Your task to perform on an android device: toggle show notifications on the lock screen Image 0: 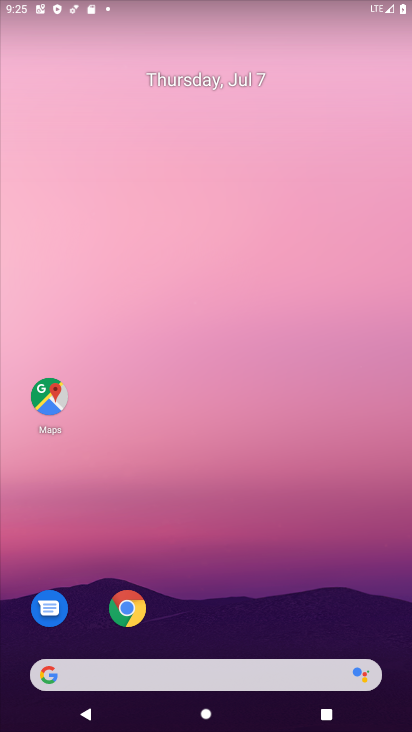
Step 0: drag from (217, 629) to (303, 155)
Your task to perform on an android device: toggle show notifications on the lock screen Image 1: 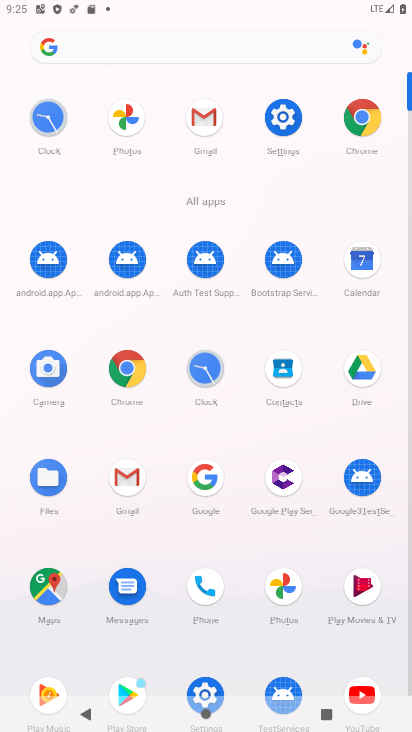
Step 1: click (283, 121)
Your task to perform on an android device: toggle show notifications on the lock screen Image 2: 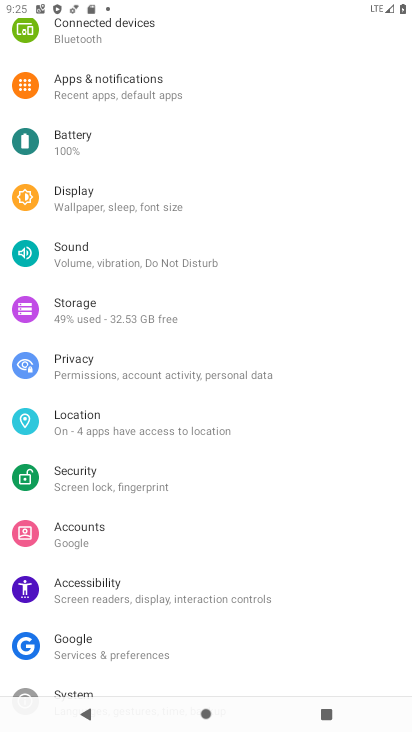
Step 2: click (95, 93)
Your task to perform on an android device: toggle show notifications on the lock screen Image 3: 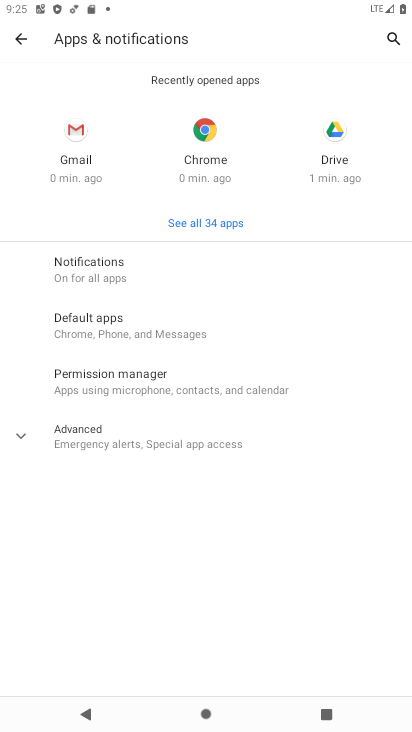
Step 3: click (83, 280)
Your task to perform on an android device: toggle show notifications on the lock screen Image 4: 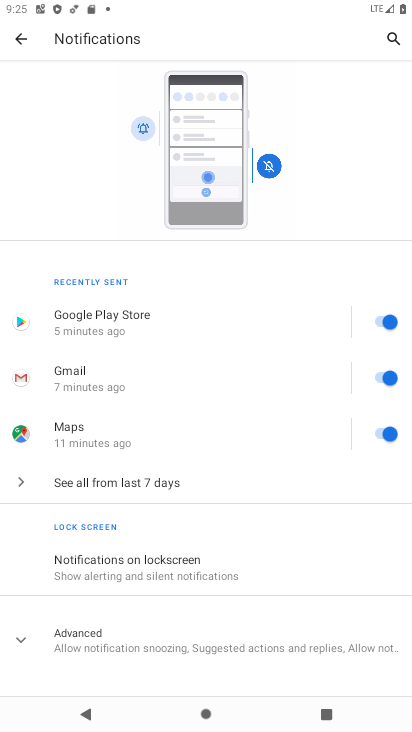
Step 4: drag from (91, 577) to (129, 368)
Your task to perform on an android device: toggle show notifications on the lock screen Image 5: 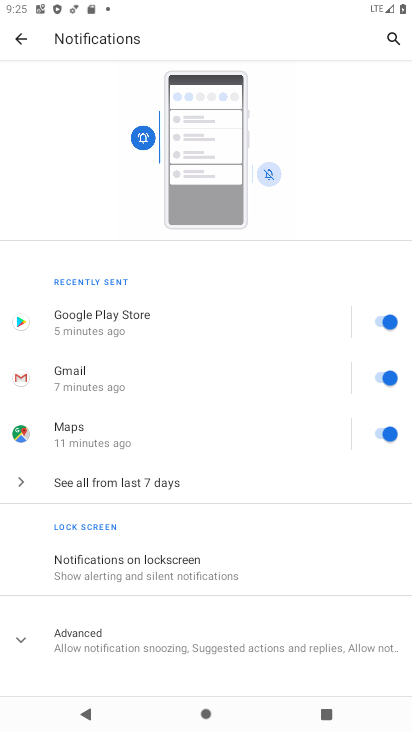
Step 5: drag from (111, 571) to (153, 433)
Your task to perform on an android device: toggle show notifications on the lock screen Image 6: 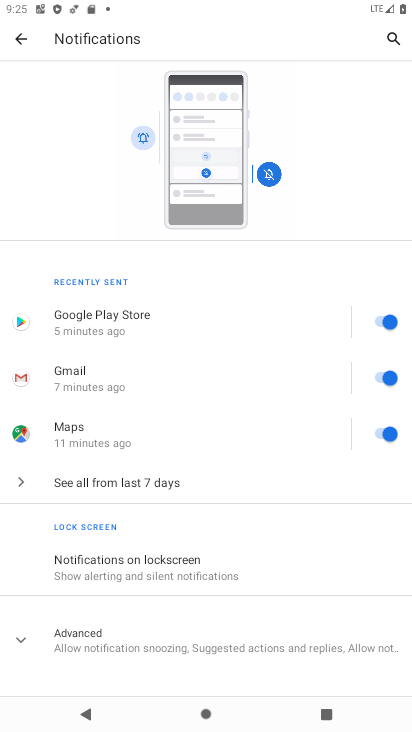
Step 6: click (179, 575)
Your task to perform on an android device: toggle show notifications on the lock screen Image 7: 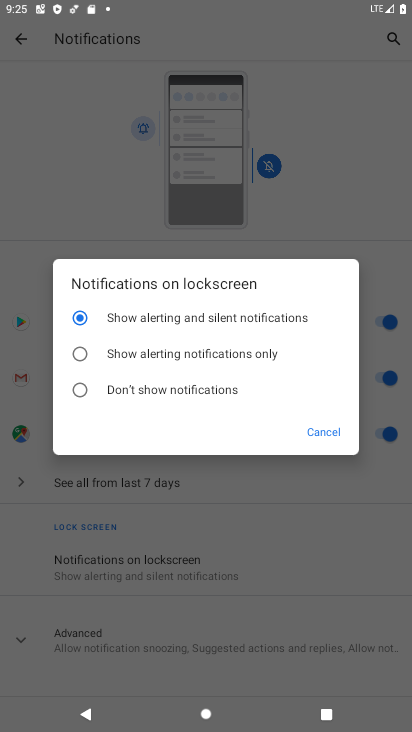
Step 7: click (78, 391)
Your task to perform on an android device: toggle show notifications on the lock screen Image 8: 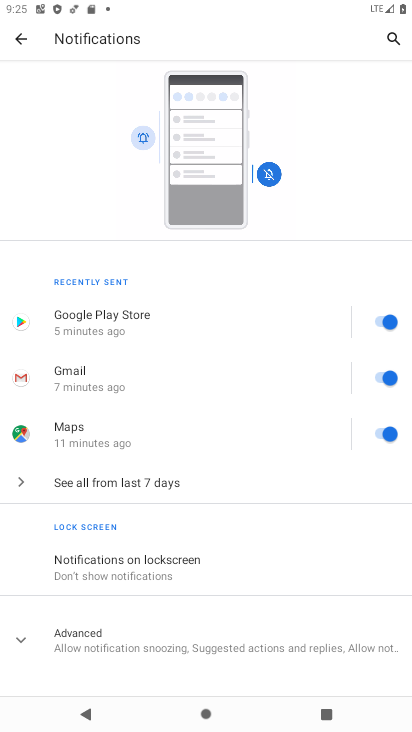
Step 8: task complete